Your task to perform on an android device: turn off sleep mode Image 0: 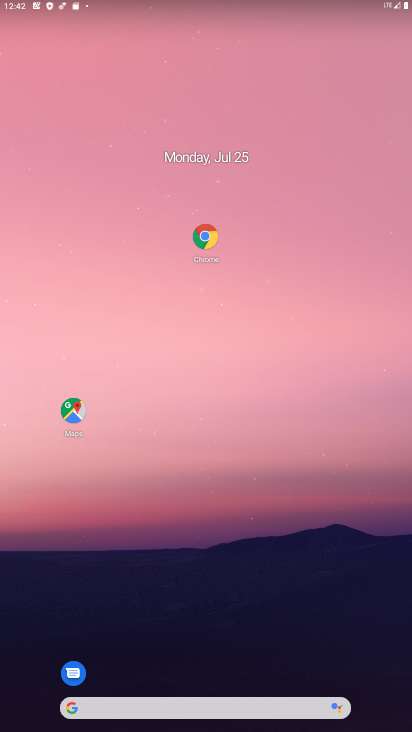
Step 0: drag from (215, 675) to (273, 13)
Your task to perform on an android device: turn off sleep mode Image 1: 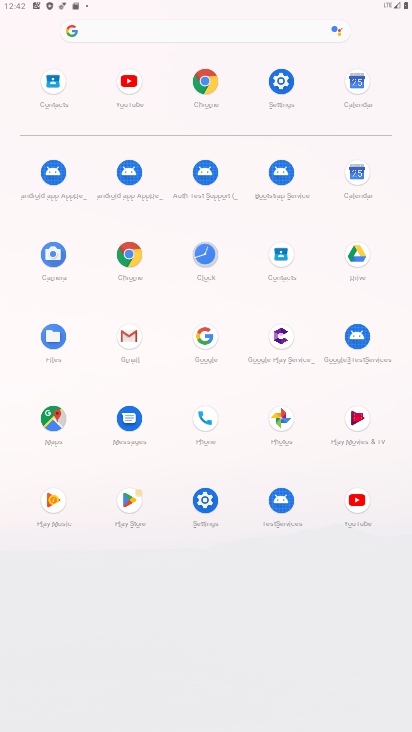
Step 1: click (290, 84)
Your task to perform on an android device: turn off sleep mode Image 2: 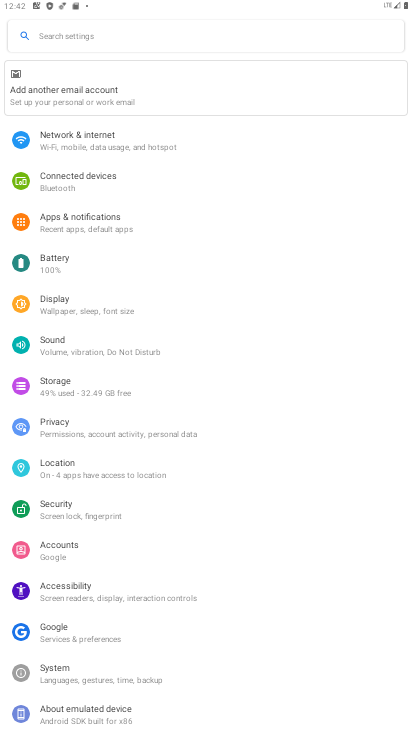
Step 2: click (113, 315)
Your task to perform on an android device: turn off sleep mode Image 3: 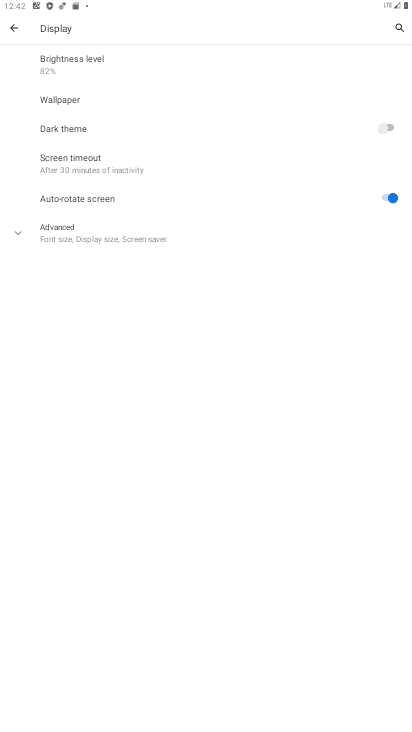
Step 3: task complete